Your task to perform on an android device: snooze an email in the gmail app Image 0: 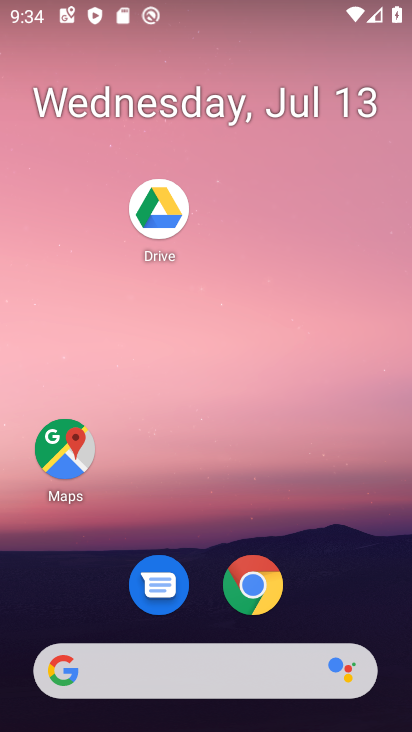
Step 0: drag from (215, 679) to (342, 132)
Your task to perform on an android device: snooze an email in the gmail app Image 1: 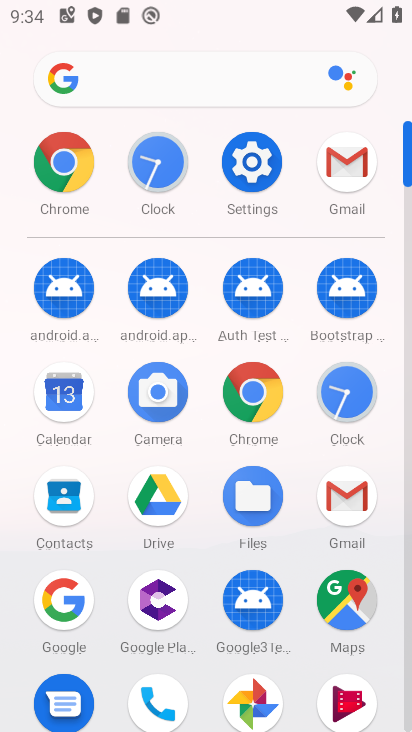
Step 1: click (350, 177)
Your task to perform on an android device: snooze an email in the gmail app Image 2: 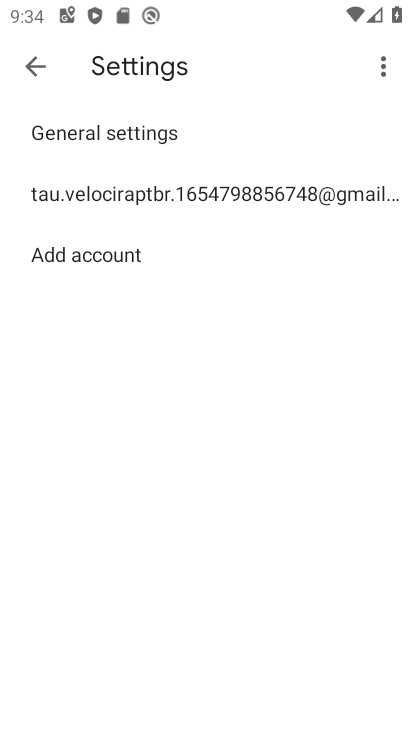
Step 2: click (33, 65)
Your task to perform on an android device: snooze an email in the gmail app Image 3: 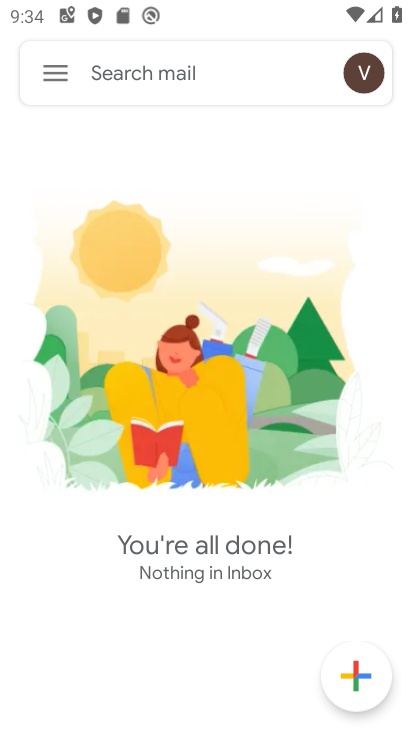
Step 3: task complete